Your task to perform on an android device: find snoozed emails in the gmail app Image 0: 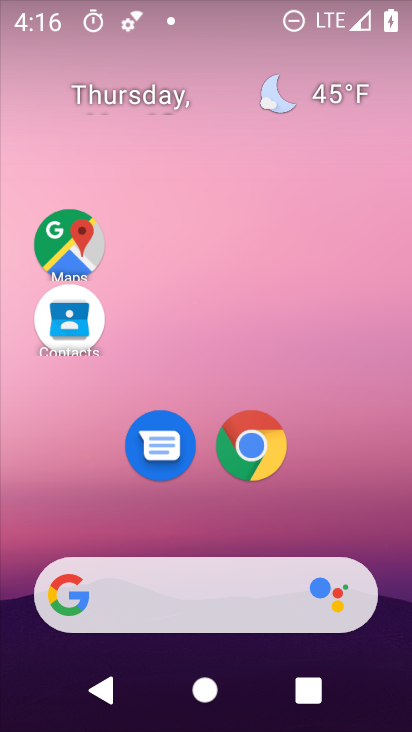
Step 0: drag from (321, 510) to (196, 57)
Your task to perform on an android device: find snoozed emails in the gmail app Image 1: 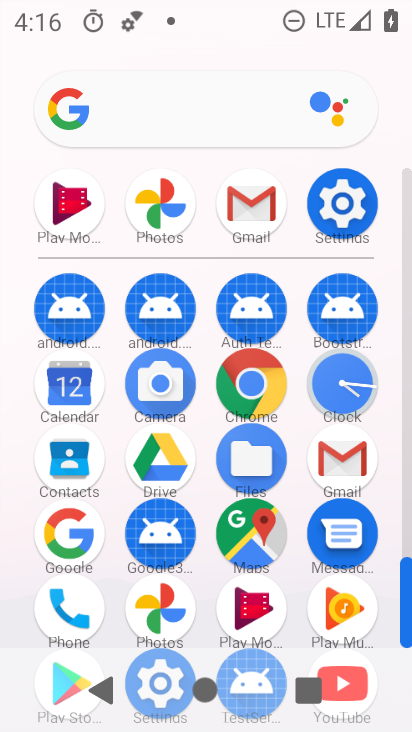
Step 1: click (255, 204)
Your task to perform on an android device: find snoozed emails in the gmail app Image 2: 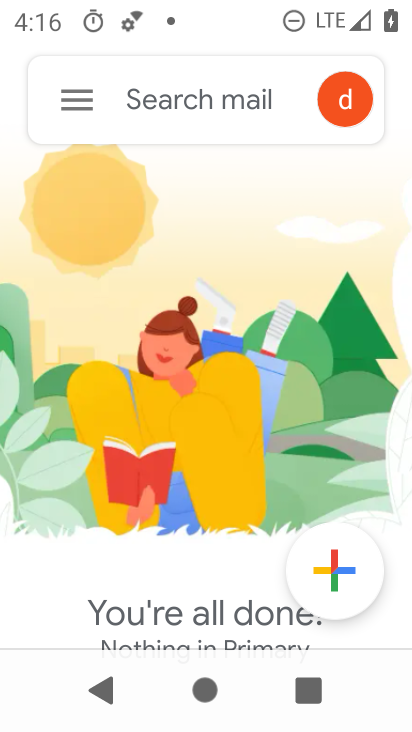
Step 2: click (80, 101)
Your task to perform on an android device: find snoozed emails in the gmail app Image 3: 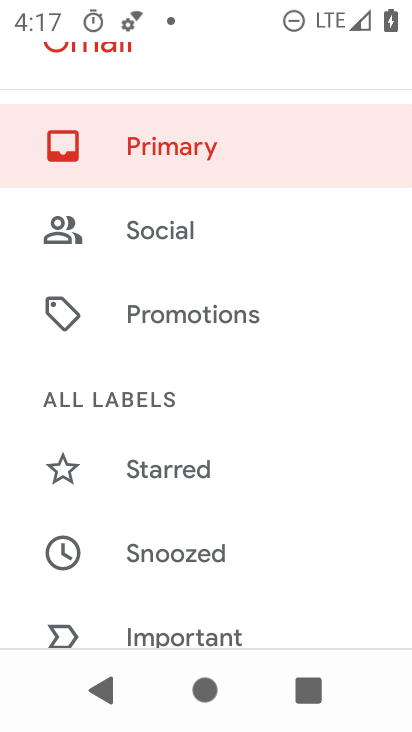
Step 3: drag from (259, 279) to (329, 491)
Your task to perform on an android device: find snoozed emails in the gmail app Image 4: 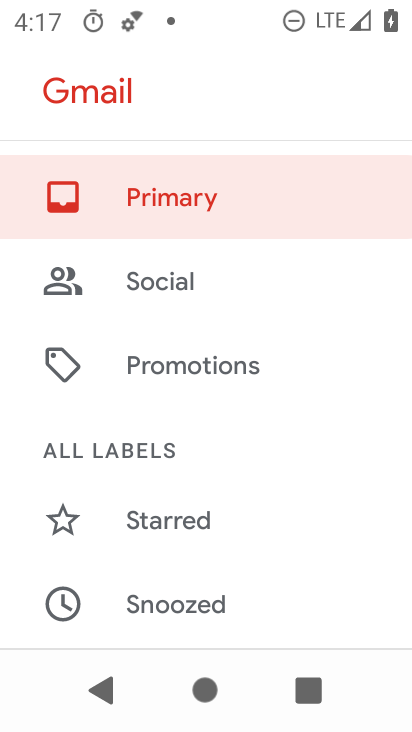
Step 4: drag from (230, 563) to (305, 419)
Your task to perform on an android device: find snoozed emails in the gmail app Image 5: 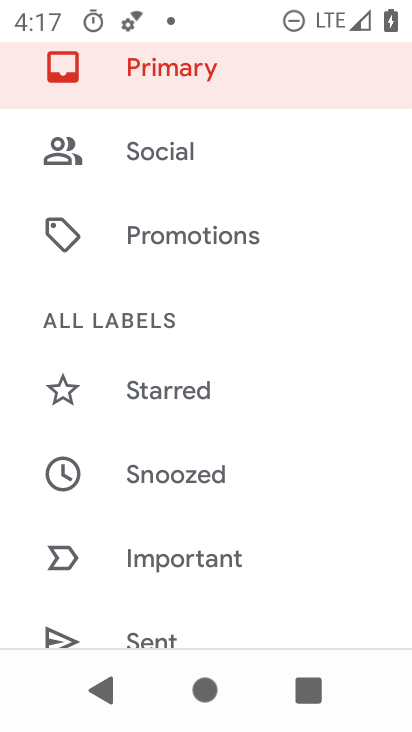
Step 5: click (200, 479)
Your task to perform on an android device: find snoozed emails in the gmail app Image 6: 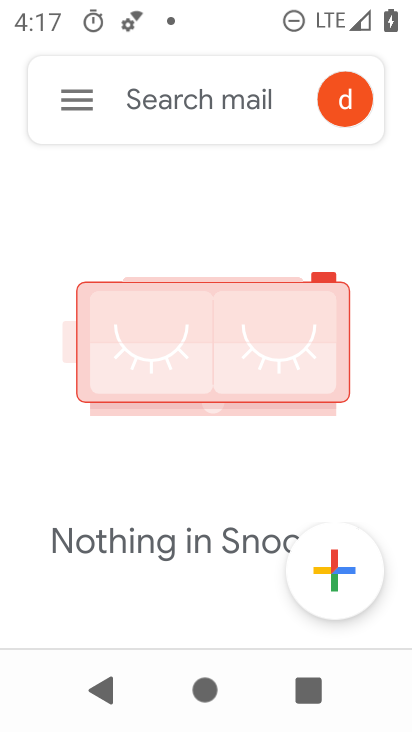
Step 6: click (86, 97)
Your task to perform on an android device: find snoozed emails in the gmail app Image 7: 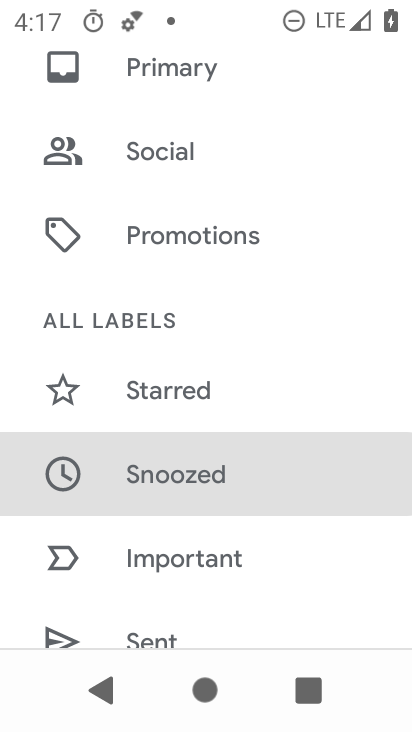
Step 7: task complete